Your task to perform on an android device: Open maps Image 0: 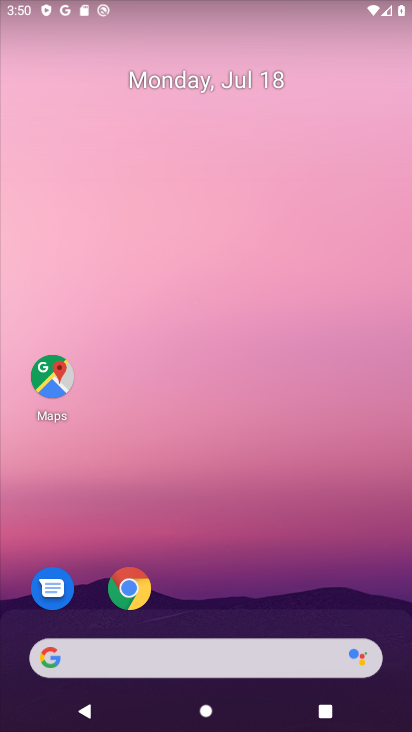
Step 0: drag from (69, 620) to (133, 150)
Your task to perform on an android device: Open maps Image 1: 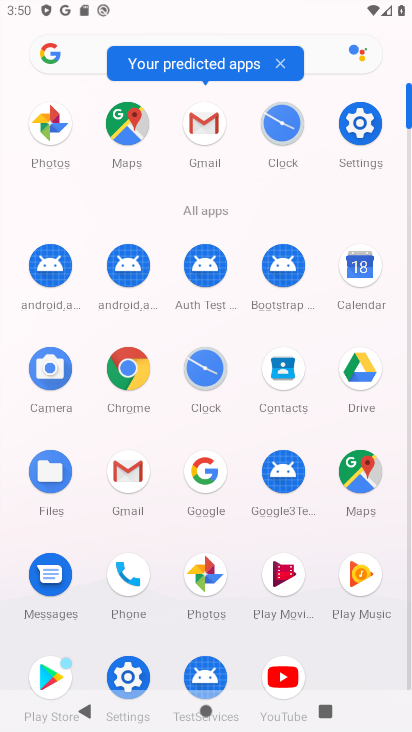
Step 1: click (358, 471)
Your task to perform on an android device: Open maps Image 2: 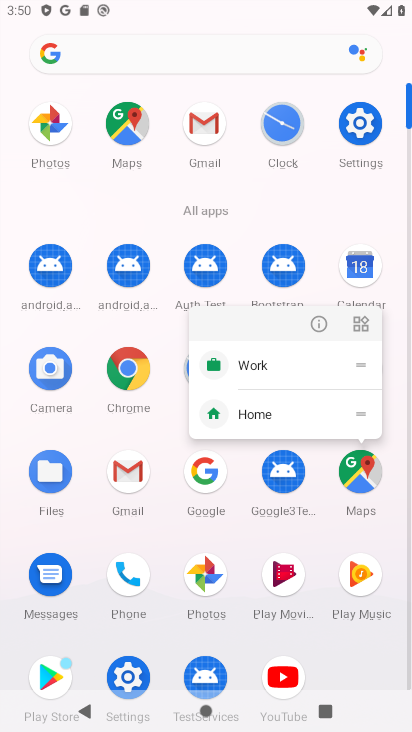
Step 2: click (357, 469)
Your task to perform on an android device: Open maps Image 3: 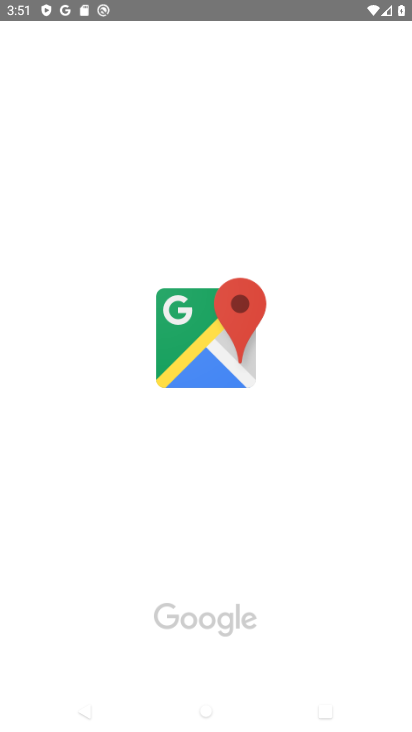
Step 3: task complete